Your task to perform on an android device: install app "Google Chat" Image 0: 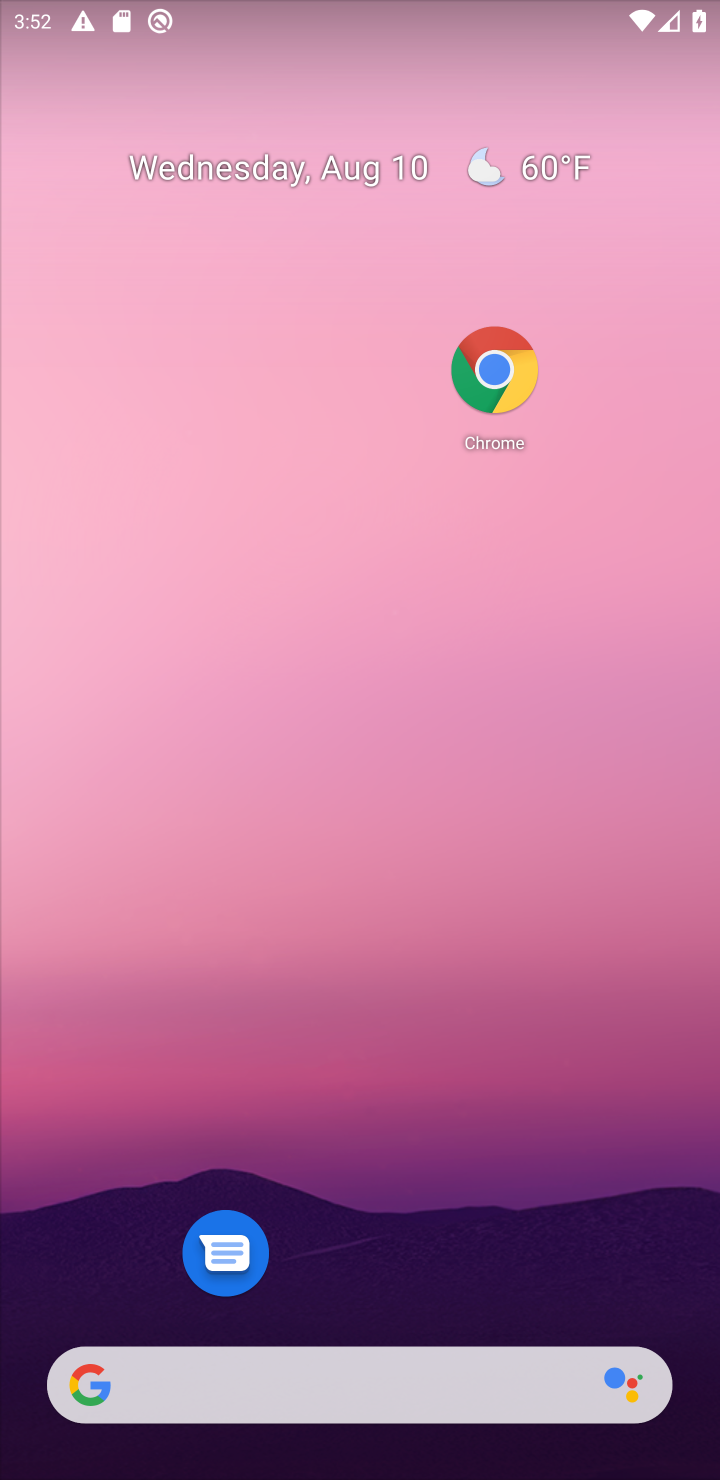
Step 0: drag from (369, 1180) to (361, 175)
Your task to perform on an android device: install app "Google Chat" Image 1: 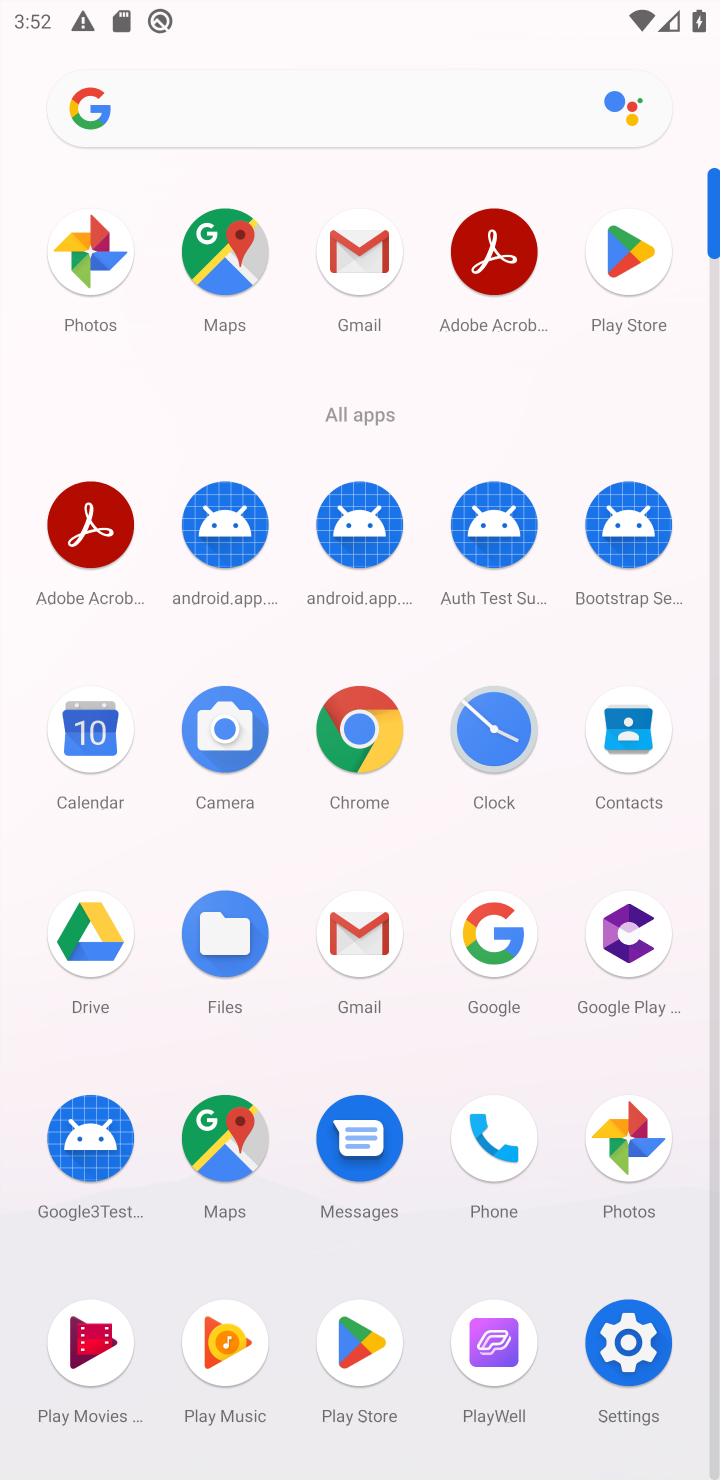
Step 1: click (632, 251)
Your task to perform on an android device: install app "Google Chat" Image 2: 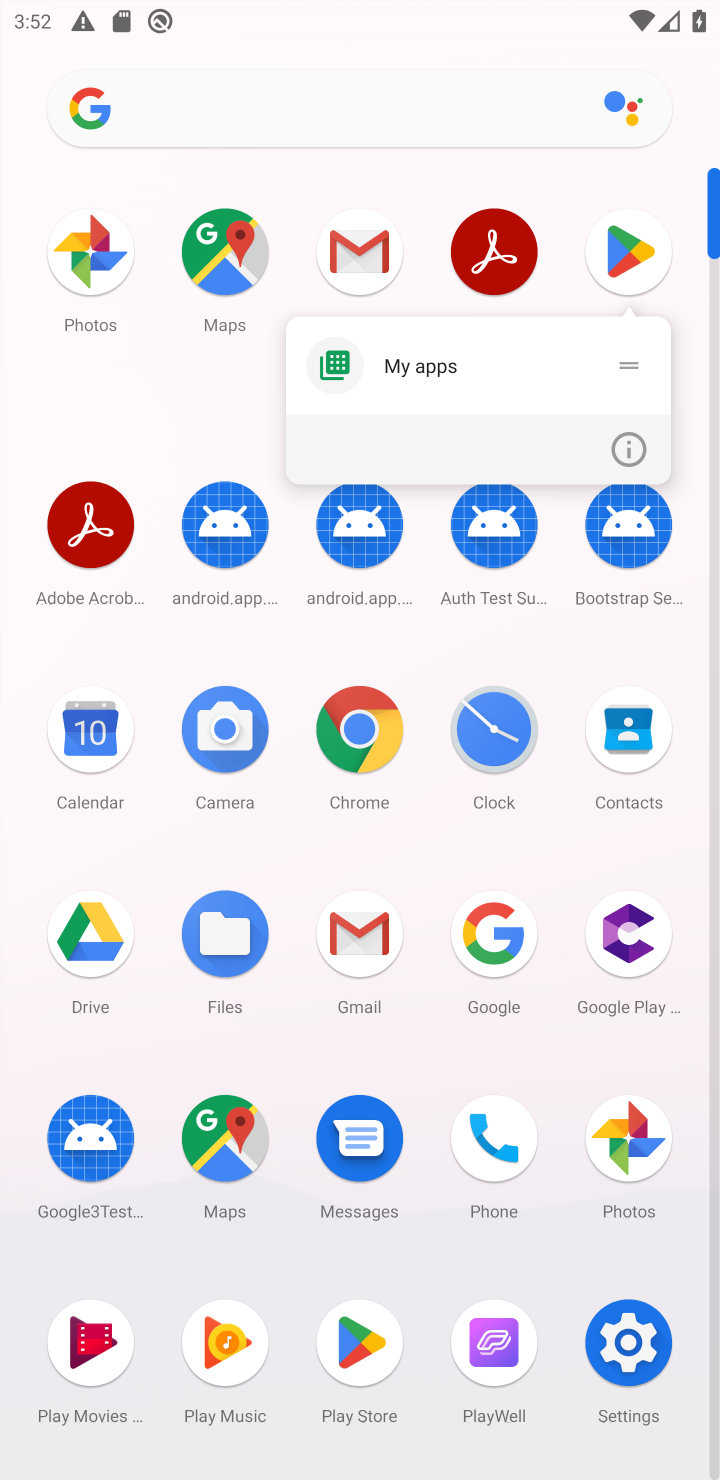
Step 2: click (629, 249)
Your task to perform on an android device: install app "Google Chat" Image 3: 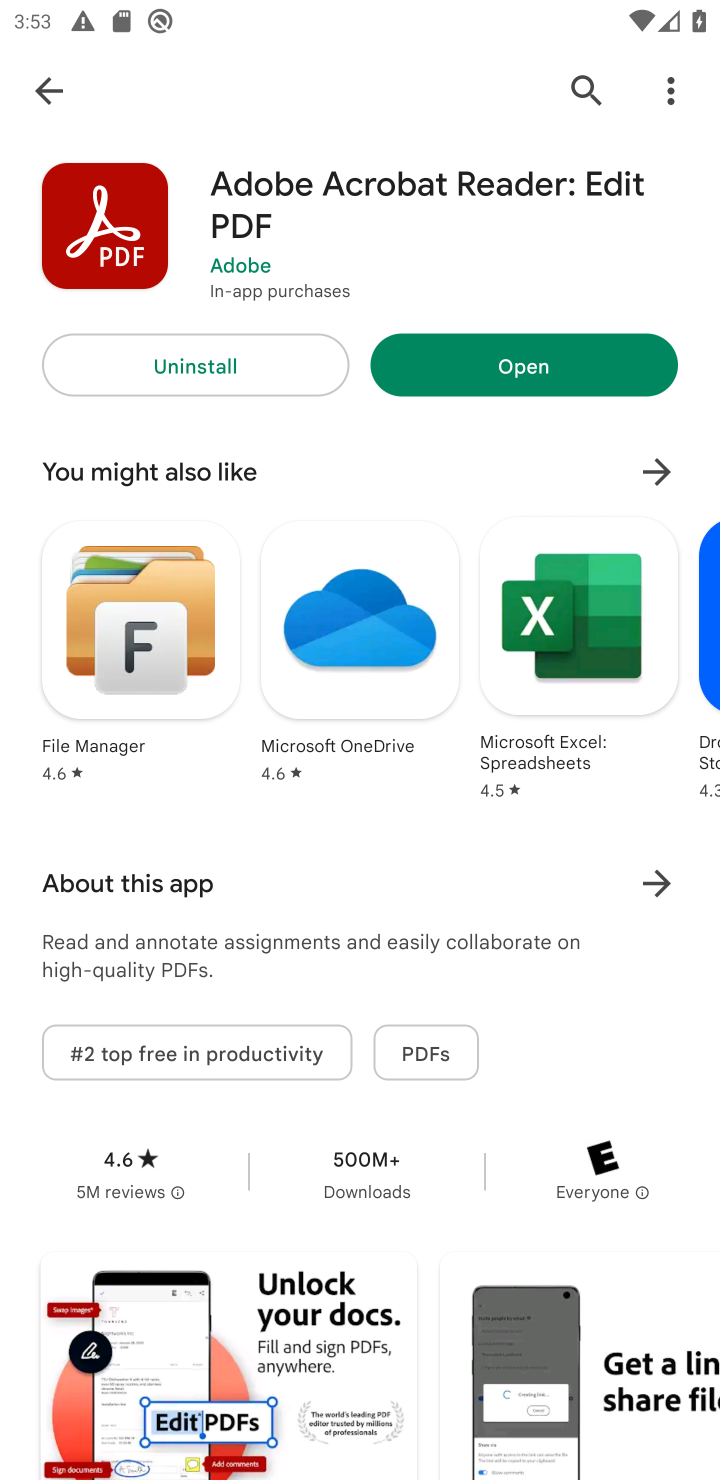
Step 3: click (51, 67)
Your task to perform on an android device: install app "Google Chat" Image 4: 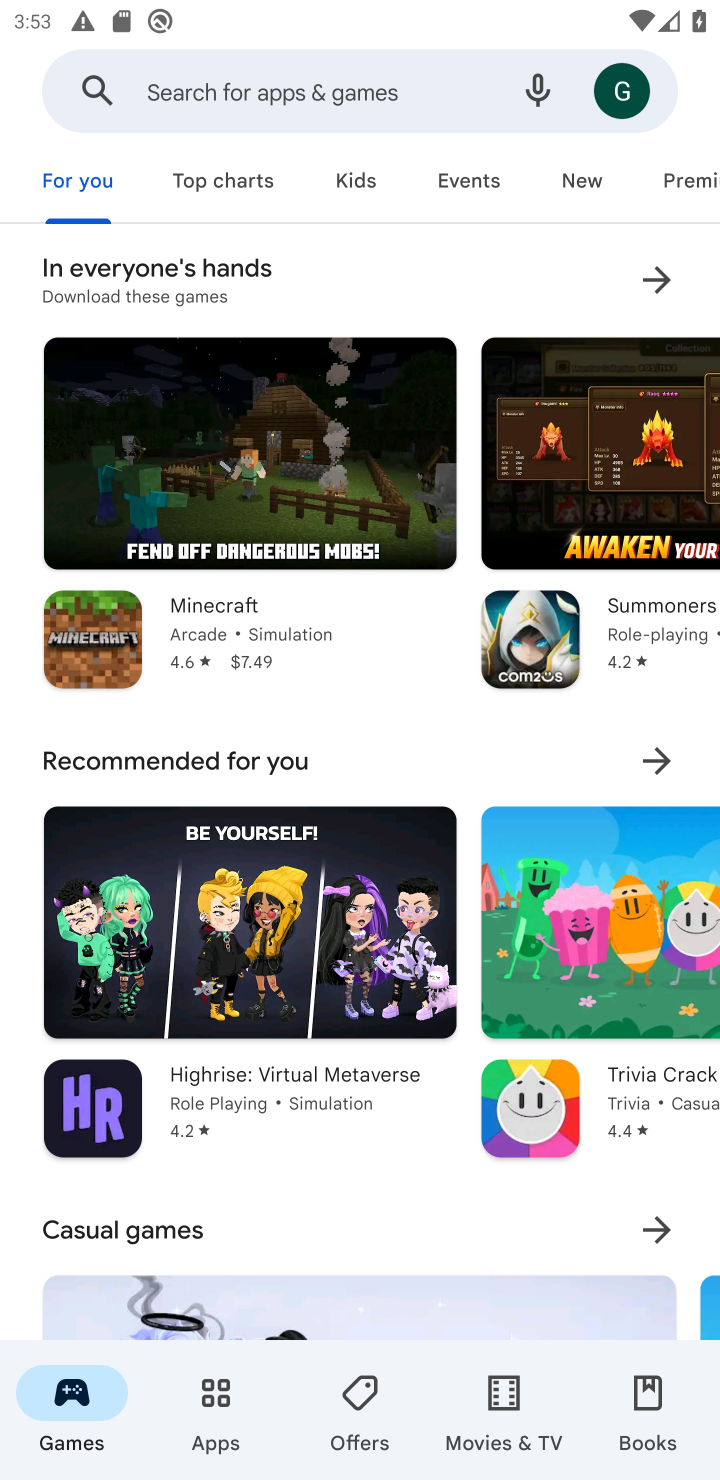
Step 4: click (353, 82)
Your task to perform on an android device: install app "Google Chat" Image 5: 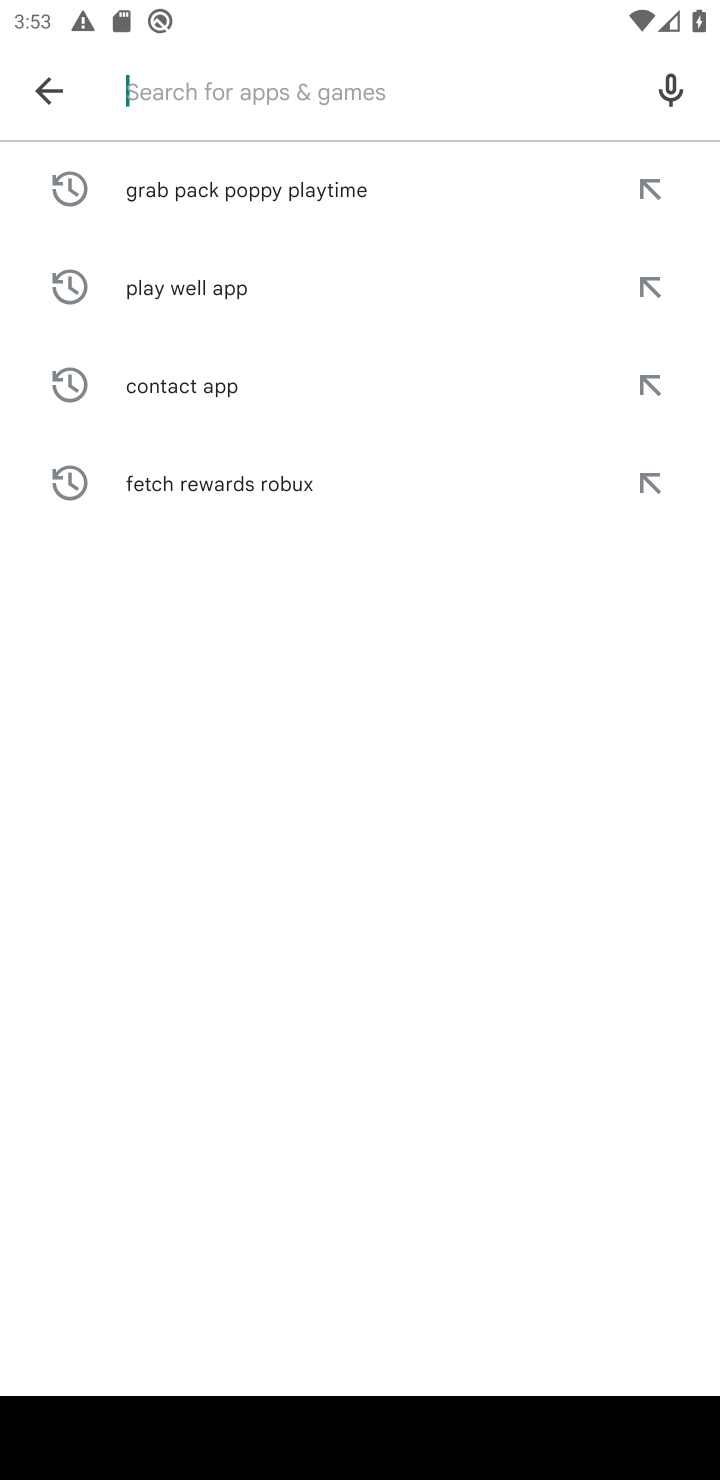
Step 5: type "Google Chat "
Your task to perform on an android device: install app "Google Chat" Image 6: 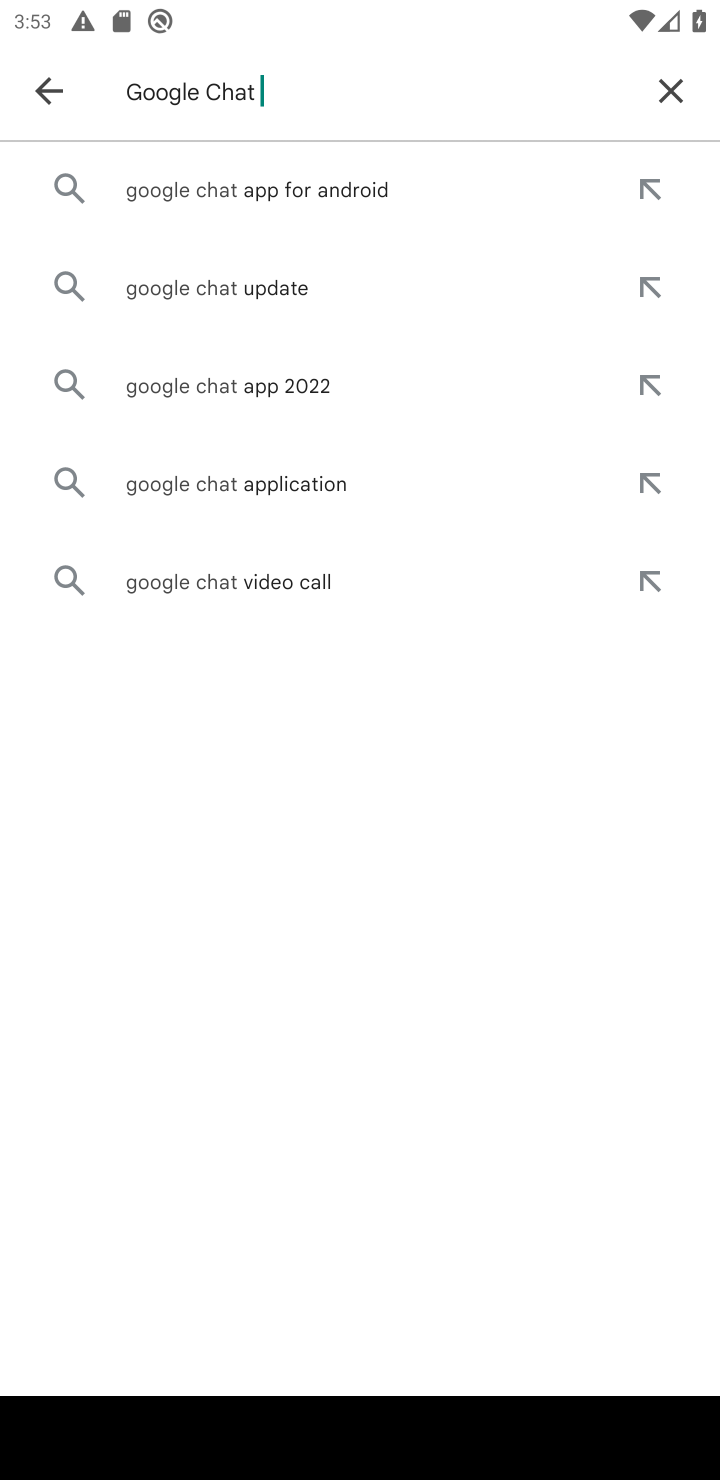
Step 6: click (282, 204)
Your task to perform on an android device: install app "Google Chat" Image 7: 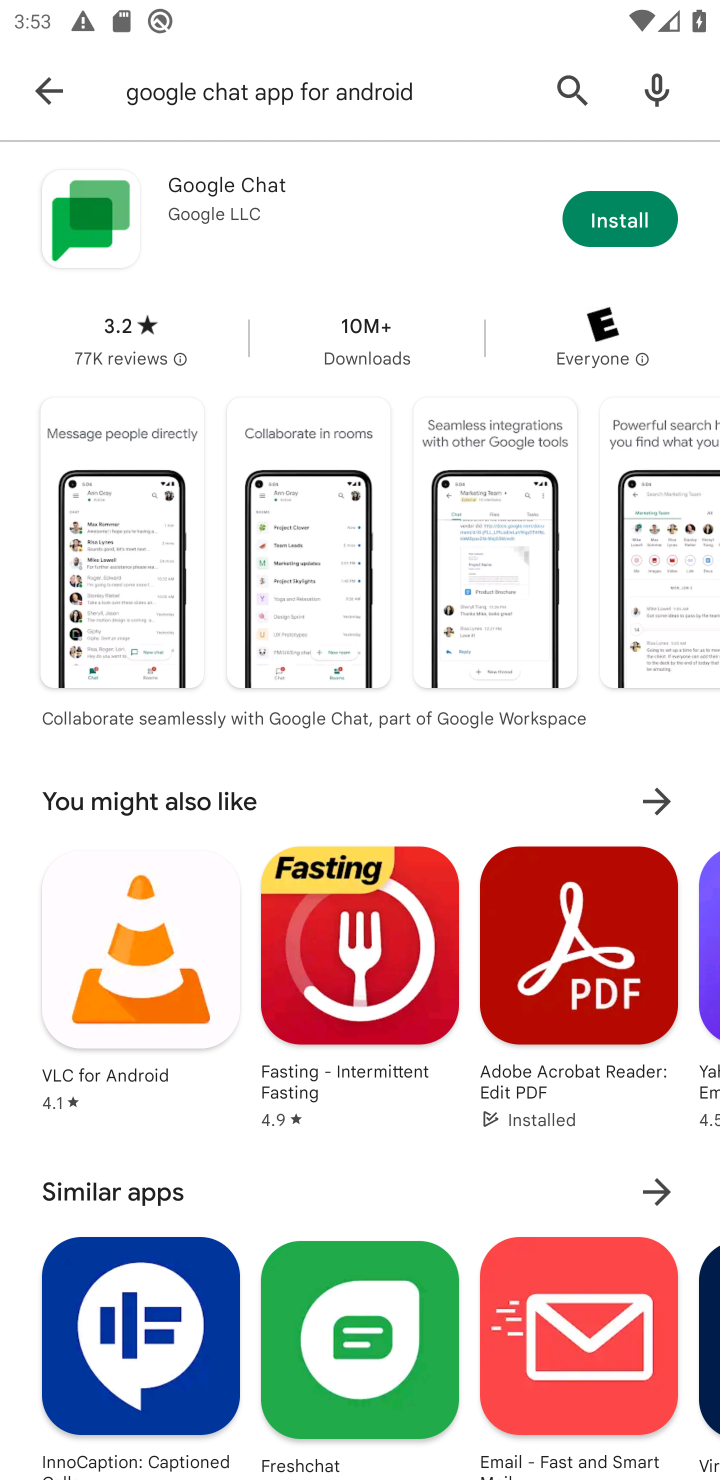
Step 7: click (602, 224)
Your task to perform on an android device: install app "Google Chat" Image 8: 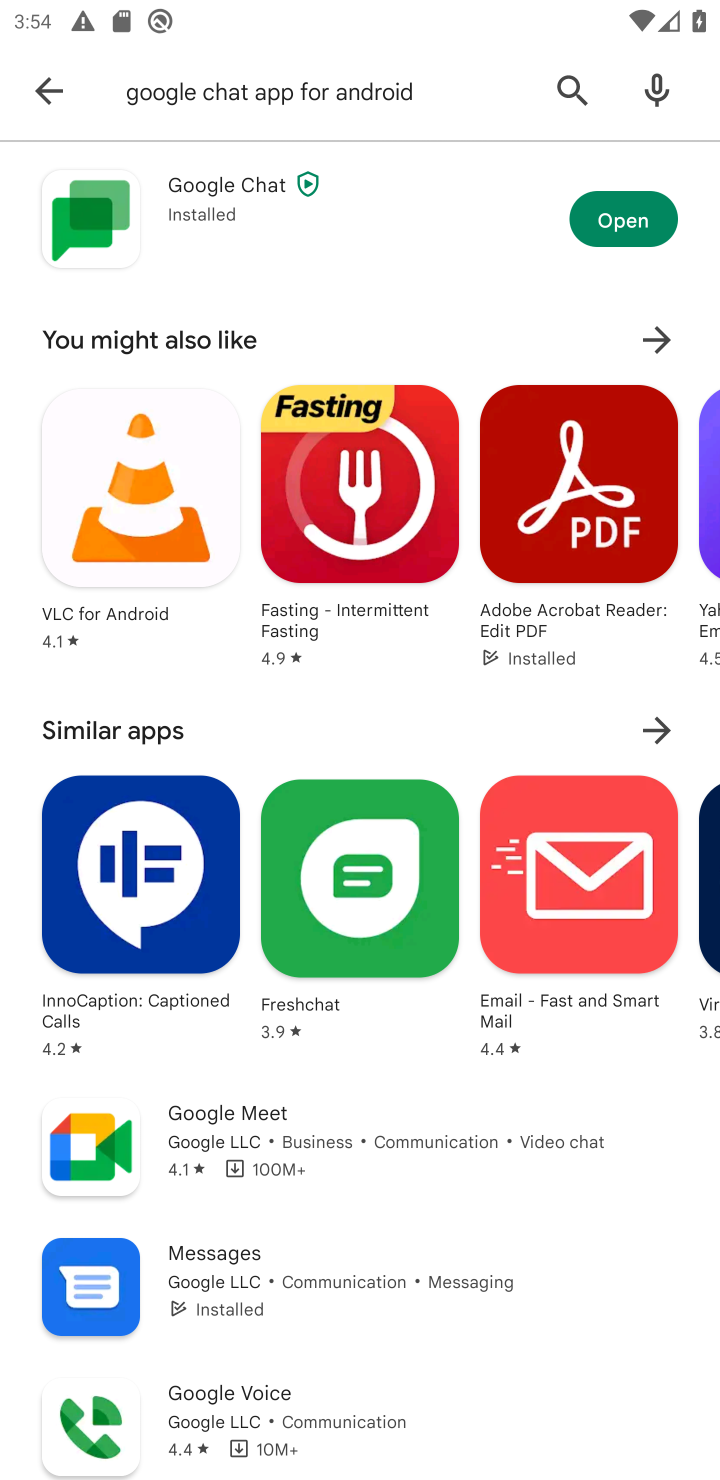
Step 8: click (629, 213)
Your task to perform on an android device: install app "Google Chat" Image 9: 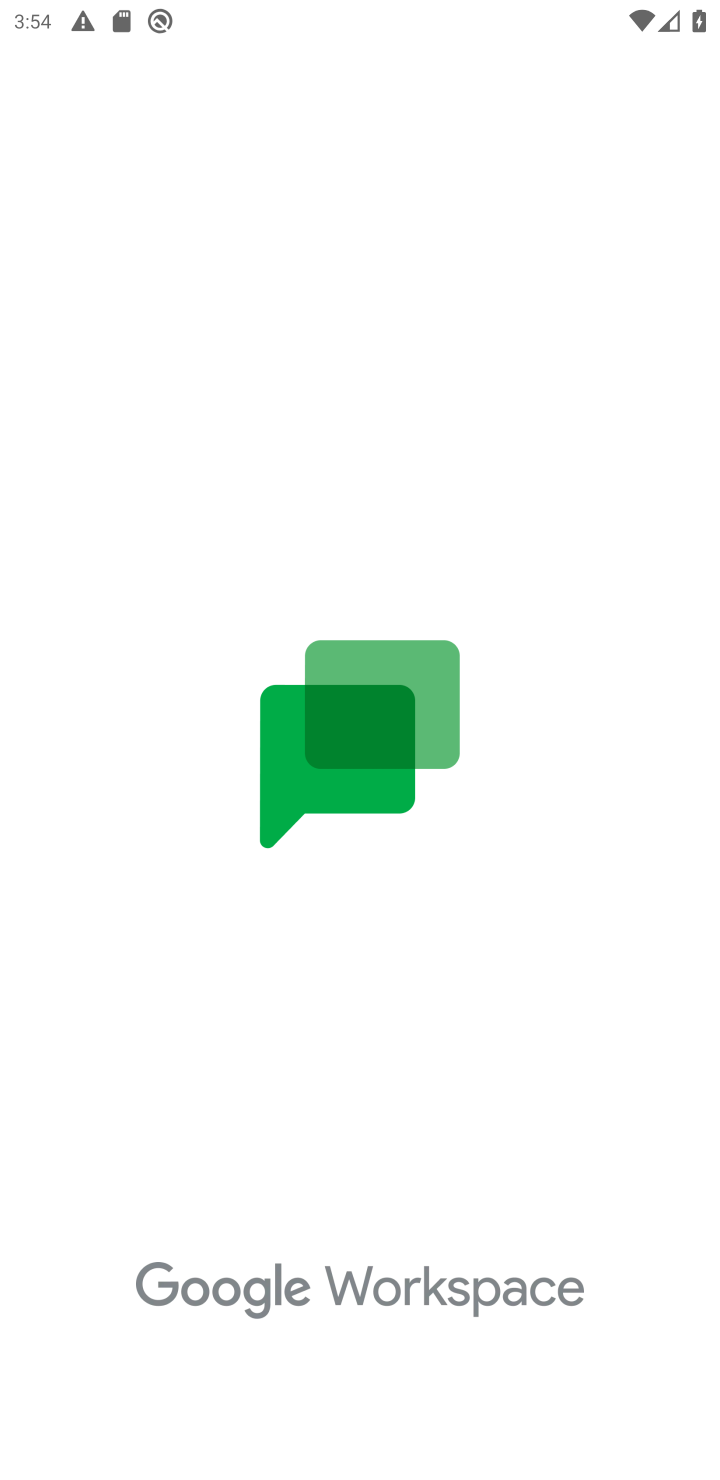
Step 9: task complete